Your task to perform on an android device: open sync settings in chrome Image 0: 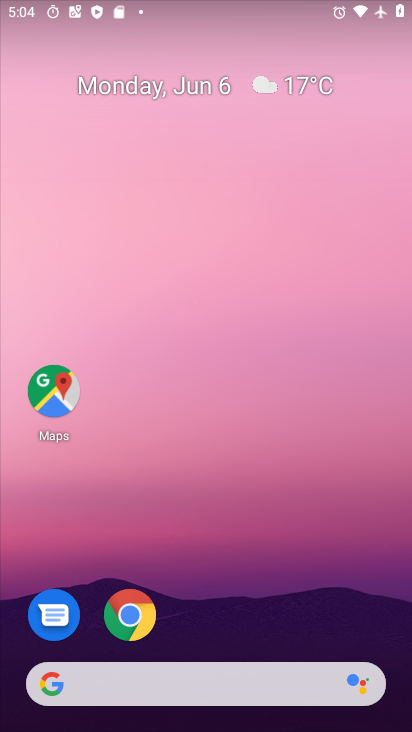
Step 0: drag from (304, 542) to (255, 15)
Your task to perform on an android device: open sync settings in chrome Image 1: 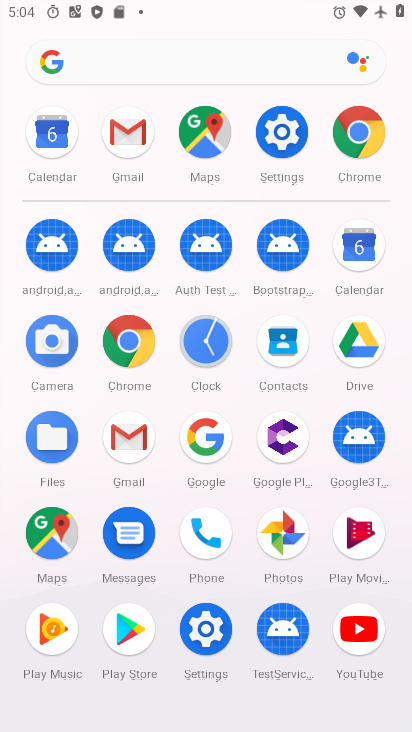
Step 1: click (132, 336)
Your task to perform on an android device: open sync settings in chrome Image 2: 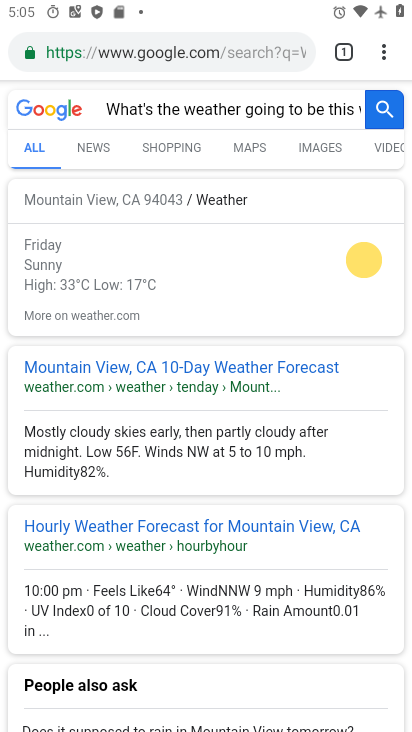
Step 2: drag from (383, 51) to (249, 593)
Your task to perform on an android device: open sync settings in chrome Image 3: 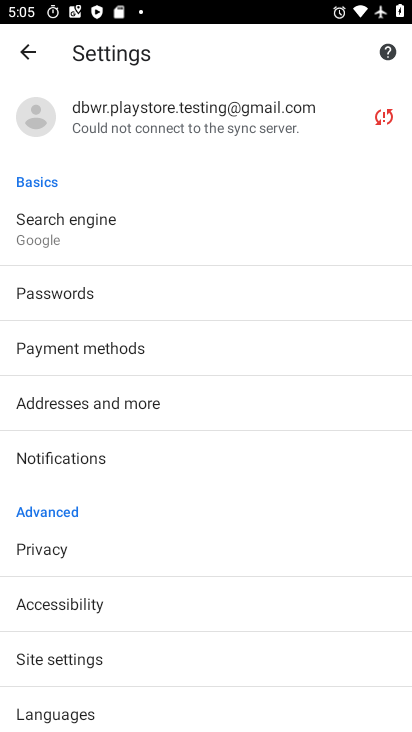
Step 3: click (160, 127)
Your task to perform on an android device: open sync settings in chrome Image 4: 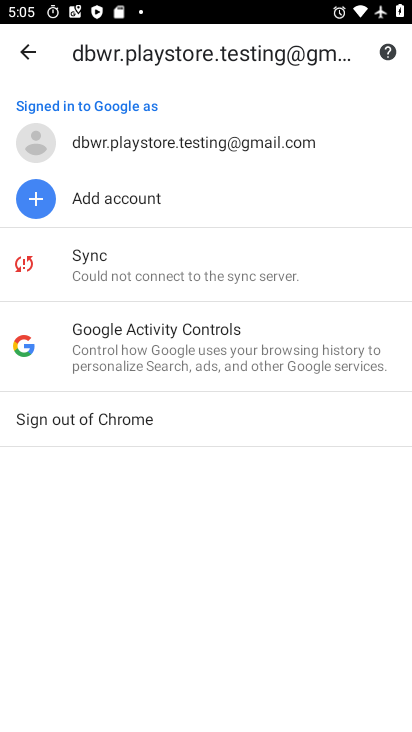
Step 4: click (158, 271)
Your task to perform on an android device: open sync settings in chrome Image 5: 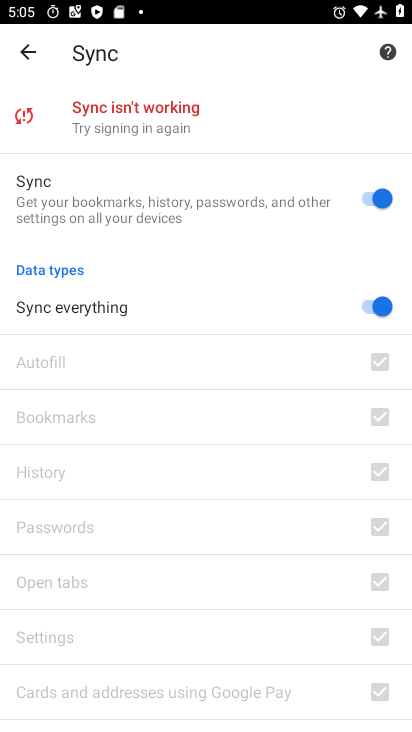
Step 5: task complete